Your task to perform on an android device: turn notification dots off Image 0: 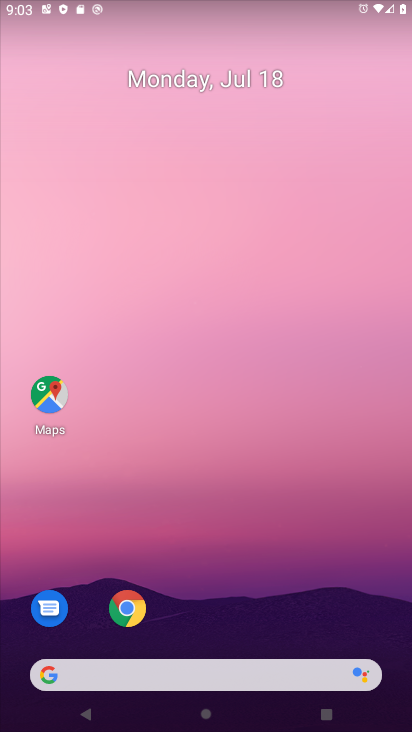
Step 0: drag from (226, 721) to (226, 175)
Your task to perform on an android device: turn notification dots off Image 1: 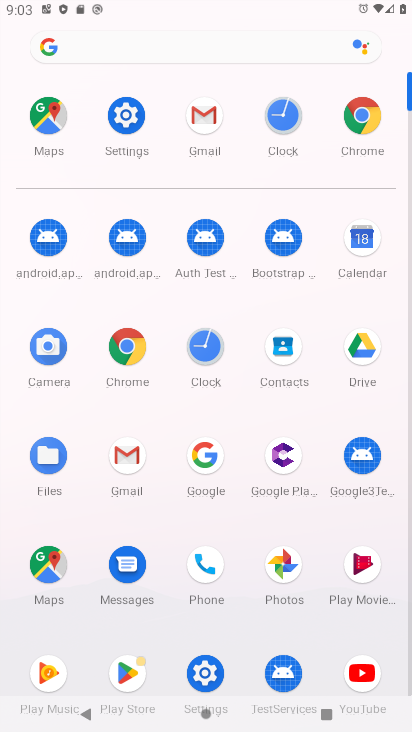
Step 1: click (126, 121)
Your task to perform on an android device: turn notification dots off Image 2: 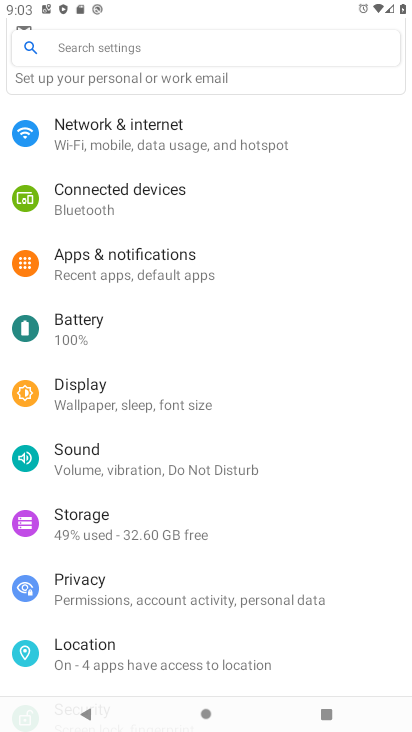
Step 2: click (142, 262)
Your task to perform on an android device: turn notification dots off Image 3: 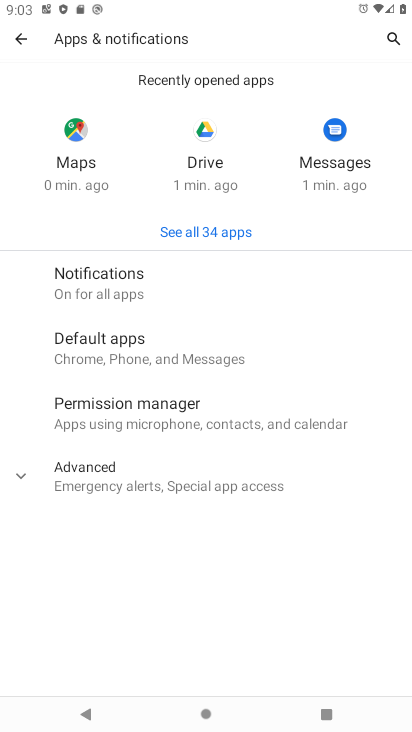
Step 3: click (129, 284)
Your task to perform on an android device: turn notification dots off Image 4: 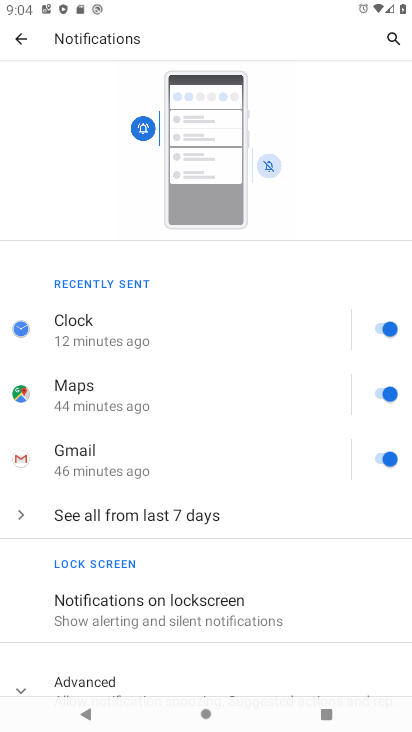
Step 4: drag from (121, 684) to (126, 493)
Your task to perform on an android device: turn notification dots off Image 5: 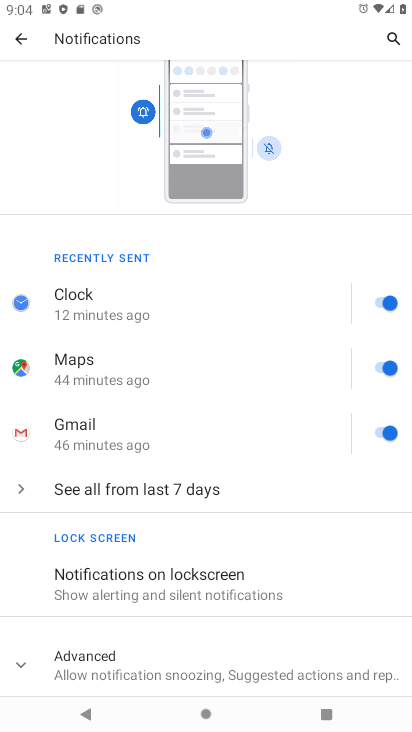
Step 5: click (112, 671)
Your task to perform on an android device: turn notification dots off Image 6: 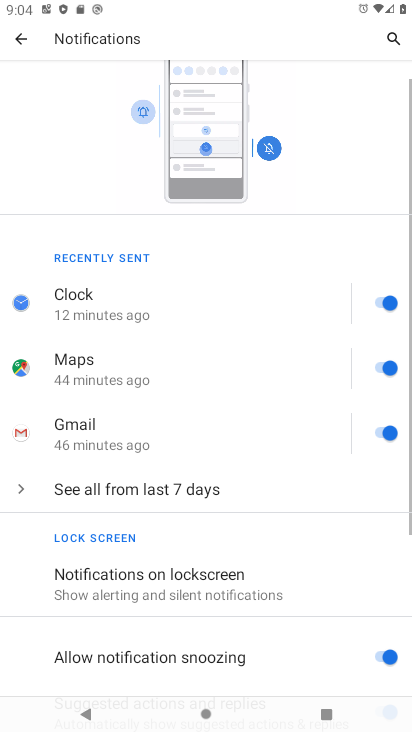
Step 6: drag from (228, 682) to (218, 432)
Your task to perform on an android device: turn notification dots off Image 7: 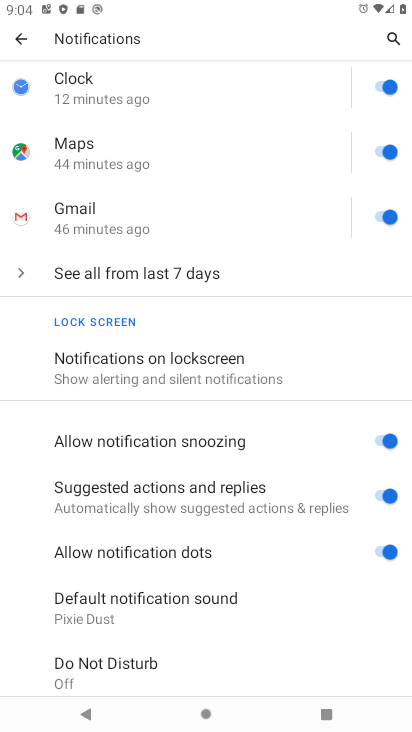
Step 7: click (382, 546)
Your task to perform on an android device: turn notification dots off Image 8: 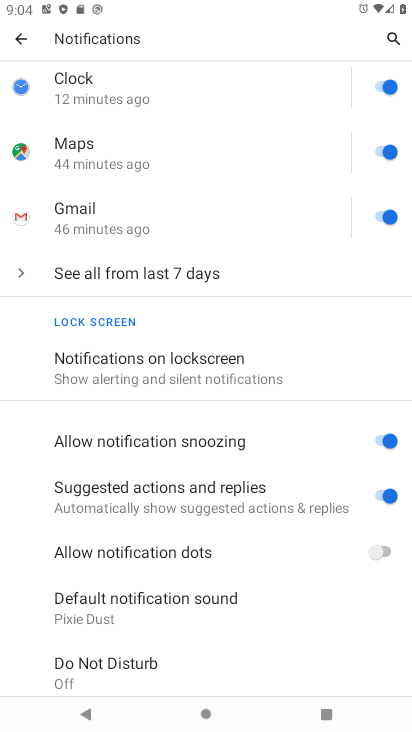
Step 8: task complete